Your task to perform on an android device: Open Yahoo.com Image 0: 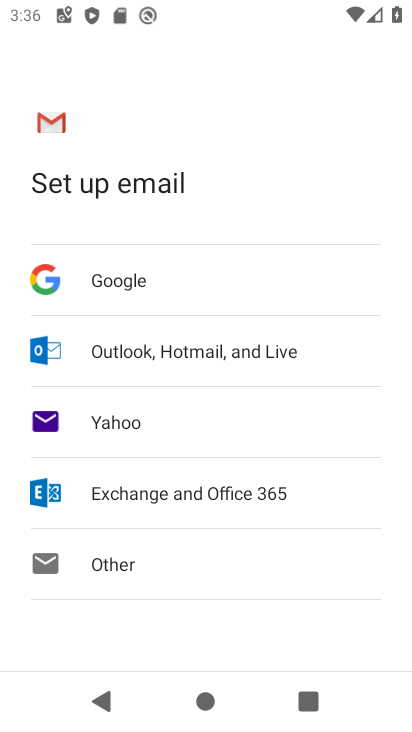
Step 0: press home button
Your task to perform on an android device: Open Yahoo.com Image 1: 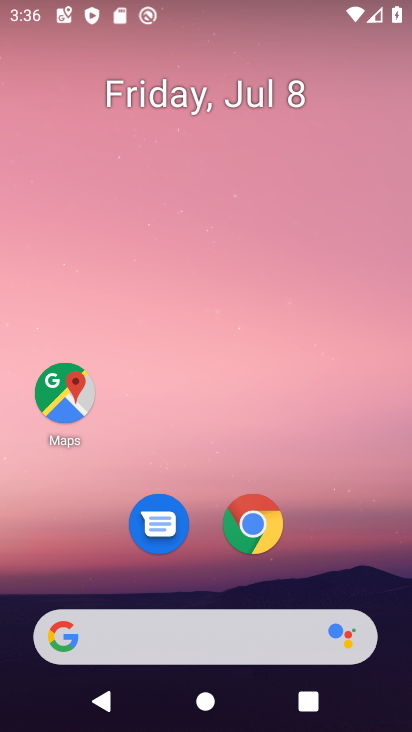
Step 1: click (240, 640)
Your task to perform on an android device: Open Yahoo.com Image 2: 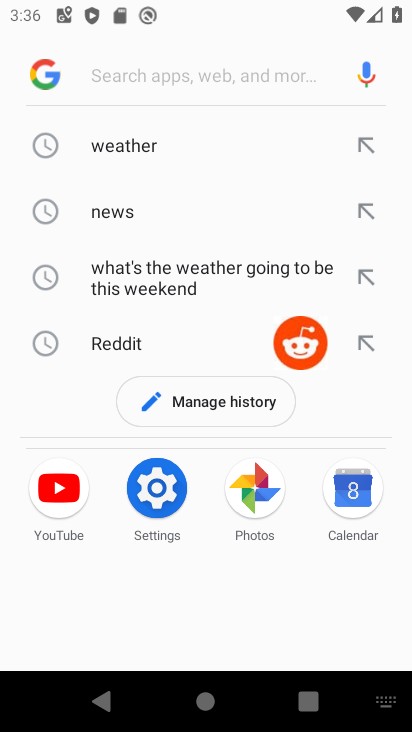
Step 2: type "yahoo.com"
Your task to perform on an android device: Open Yahoo.com Image 3: 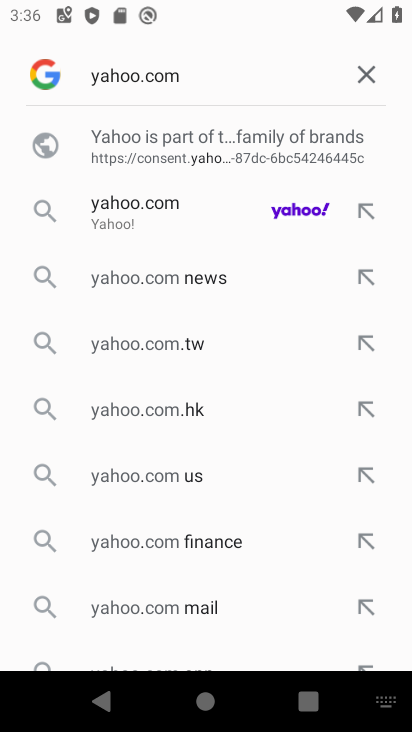
Step 3: click (295, 209)
Your task to perform on an android device: Open Yahoo.com Image 4: 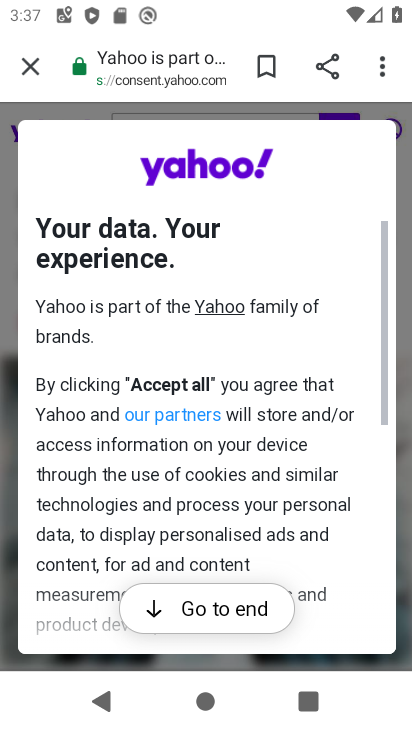
Step 4: click (269, 604)
Your task to perform on an android device: Open Yahoo.com Image 5: 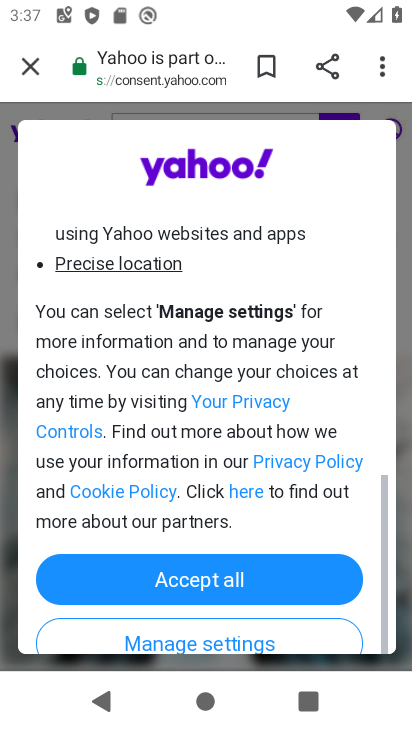
Step 5: click (323, 583)
Your task to perform on an android device: Open Yahoo.com Image 6: 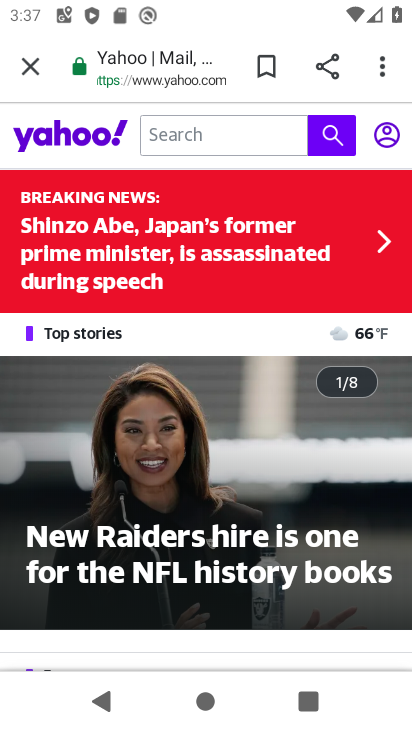
Step 6: task complete